Your task to perform on an android device: Open the stopwatch Image 0: 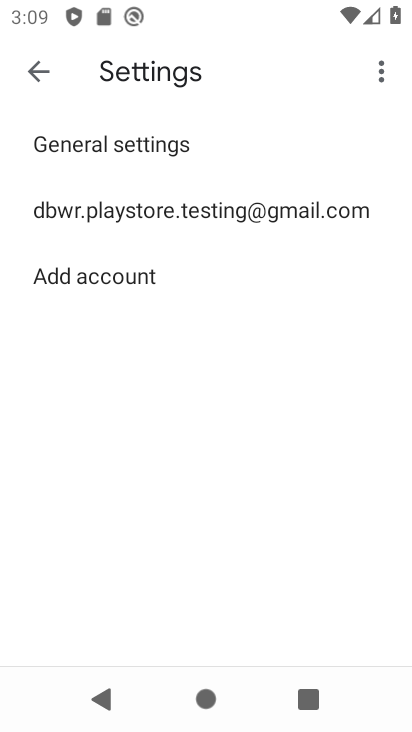
Step 0: press home button
Your task to perform on an android device: Open the stopwatch Image 1: 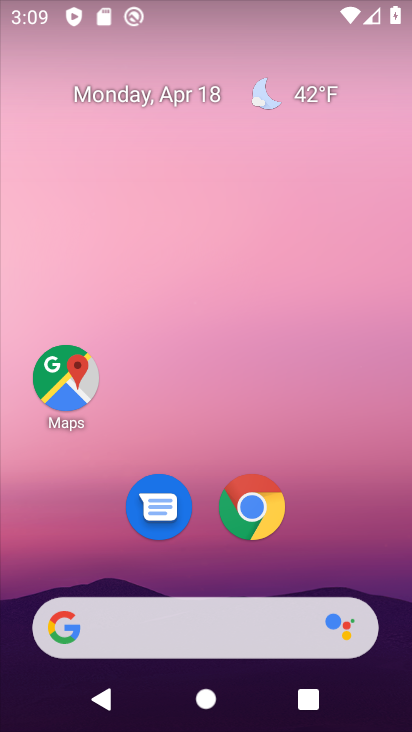
Step 1: drag from (350, 501) to (357, 194)
Your task to perform on an android device: Open the stopwatch Image 2: 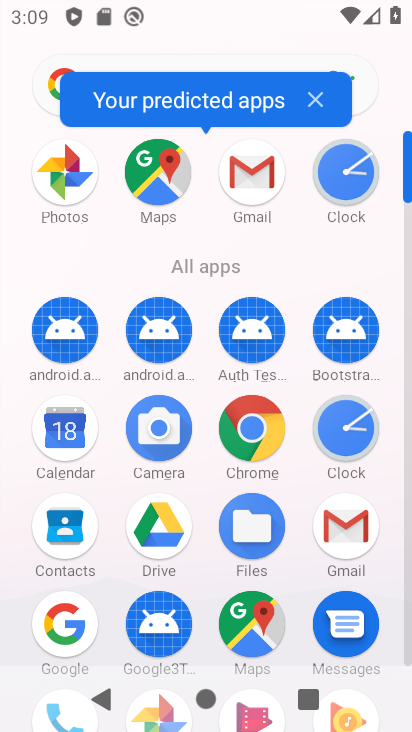
Step 2: click (331, 444)
Your task to perform on an android device: Open the stopwatch Image 3: 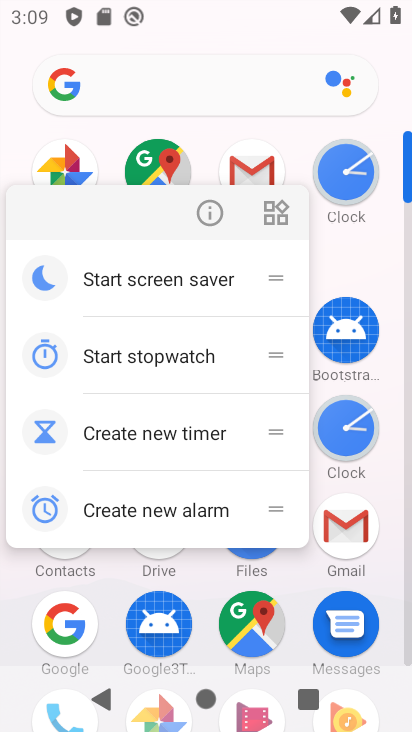
Step 3: click (331, 443)
Your task to perform on an android device: Open the stopwatch Image 4: 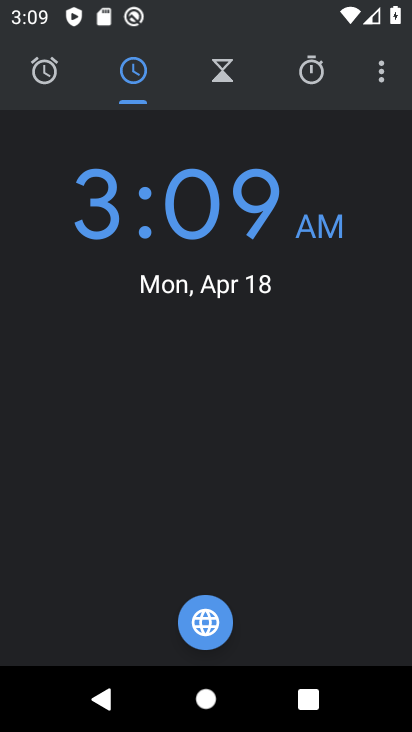
Step 4: click (318, 79)
Your task to perform on an android device: Open the stopwatch Image 5: 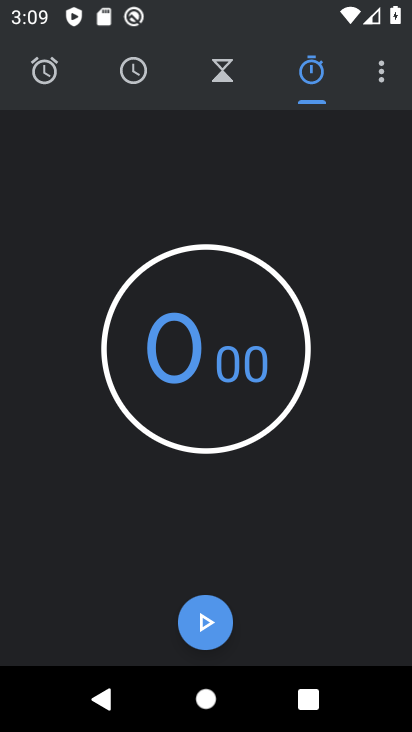
Step 5: task complete